Your task to perform on an android device: turn off javascript in the chrome app Image 0: 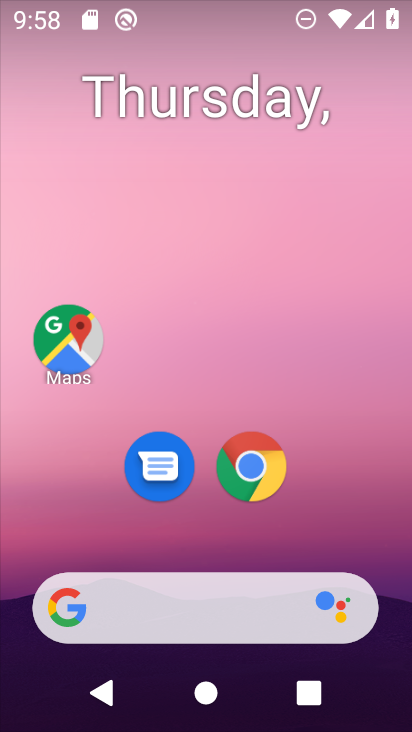
Step 0: drag from (240, 563) to (261, 206)
Your task to perform on an android device: turn off javascript in the chrome app Image 1: 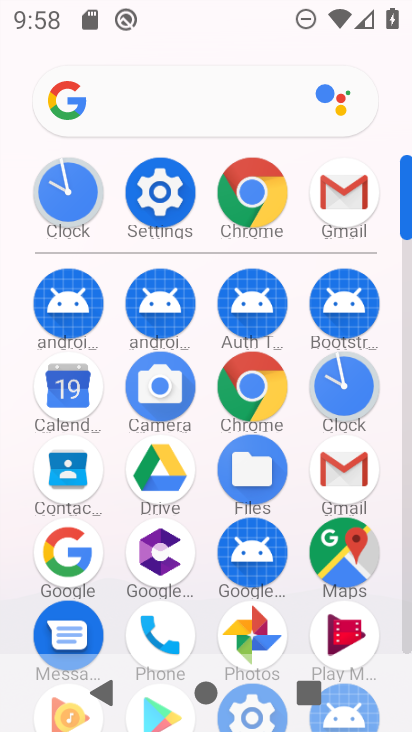
Step 1: click (255, 390)
Your task to perform on an android device: turn off javascript in the chrome app Image 2: 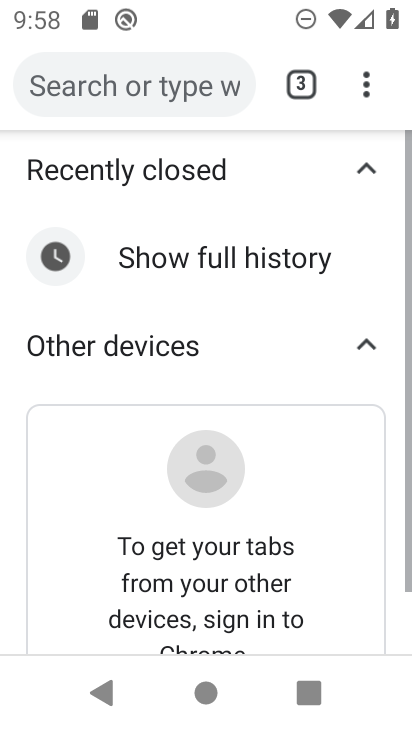
Step 2: drag from (368, 86) to (164, 523)
Your task to perform on an android device: turn off javascript in the chrome app Image 3: 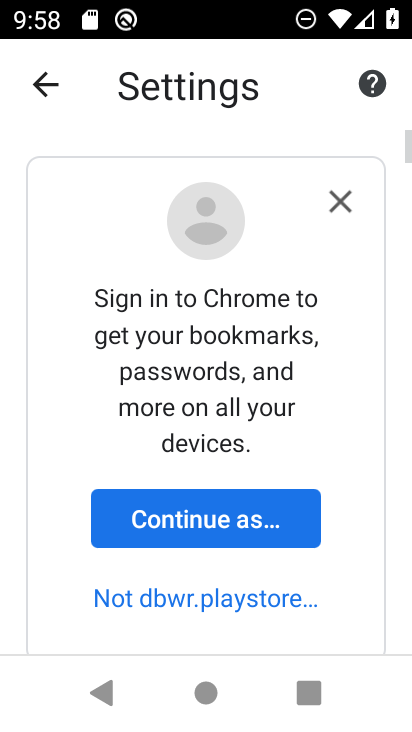
Step 3: drag from (165, 647) to (283, 181)
Your task to perform on an android device: turn off javascript in the chrome app Image 4: 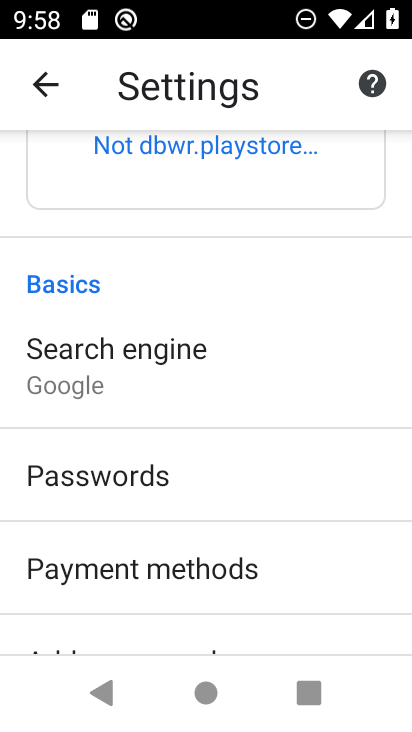
Step 4: drag from (111, 627) to (201, 292)
Your task to perform on an android device: turn off javascript in the chrome app Image 5: 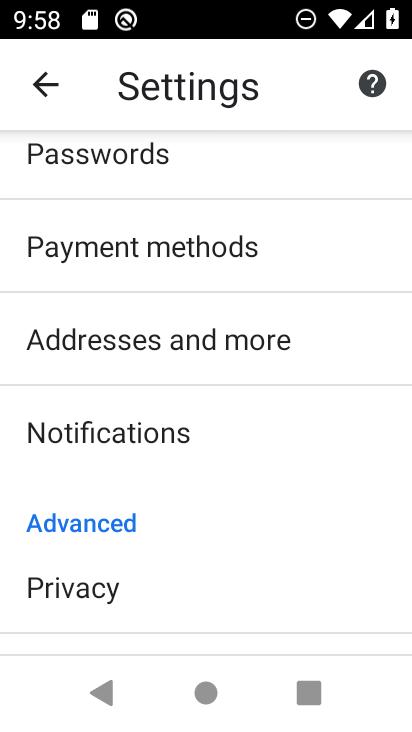
Step 5: drag from (159, 587) to (195, 259)
Your task to perform on an android device: turn off javascript in the chrome app Image 6: 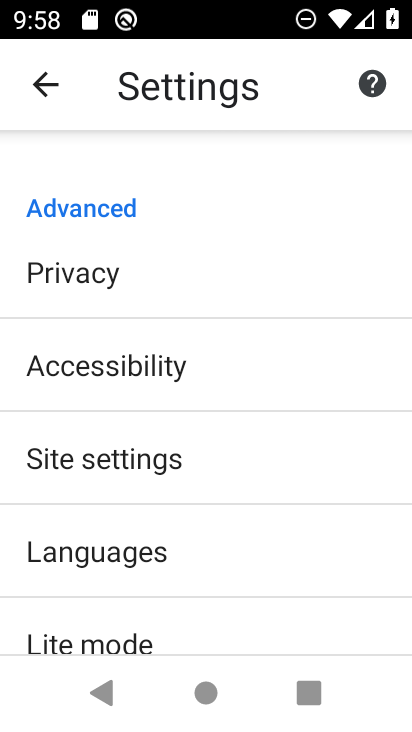
Step 6: click (112, 431)
Your task to perform on an android device: turn off javascript in the chrome app Image 7: 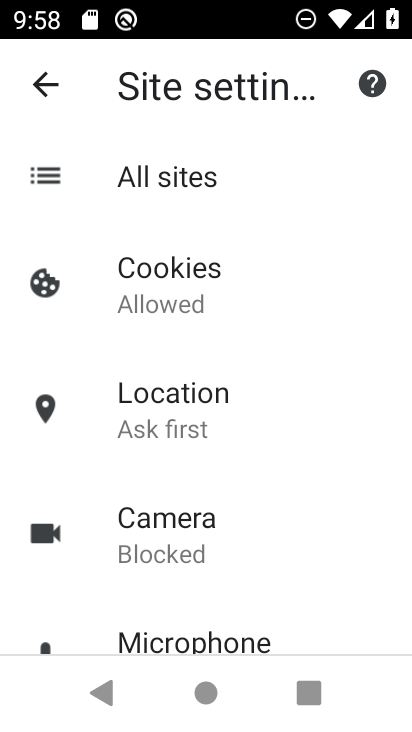
Step 7: drag from (238, 609) to (264, 281)
Your task to perform on an android device: turn off javascript in the chrome app Image 8: 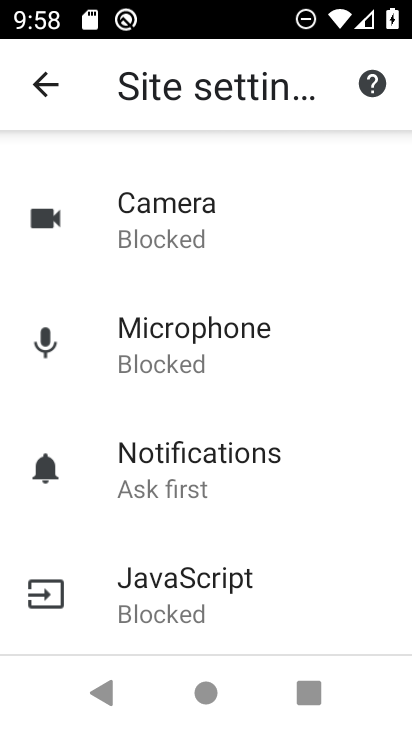
Step 8: click (176, 592)
Your task to perform on an android device: turn off javascript in the chrome app Image 9: 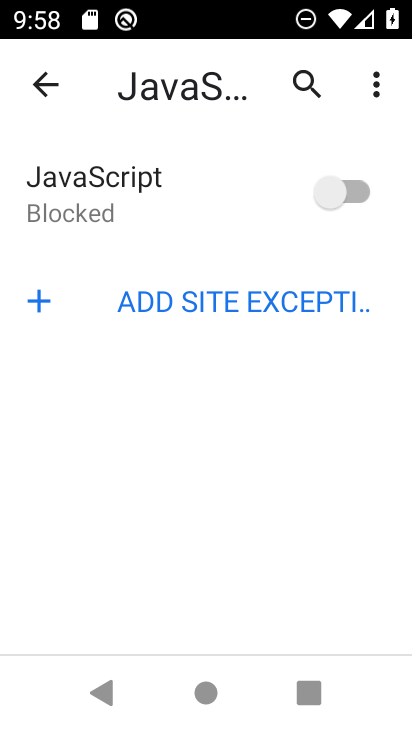
Step 9: task complete